Your task to perform on an android device: turn pop-ups off in chrome Image 0: 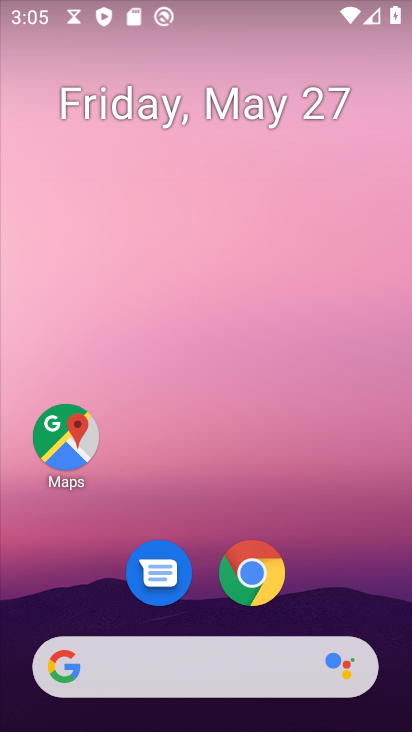
Step 0: click (242, 575)
Your task to perform on an android device: turn pop-ups off in chrome Image 1: 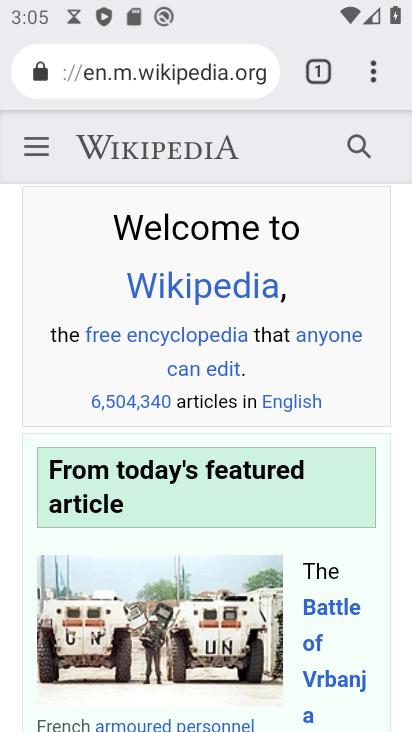
Step 1: click (366, 80)
Your task to perform on an android device: turn pop-ups off in chrome Image 2: 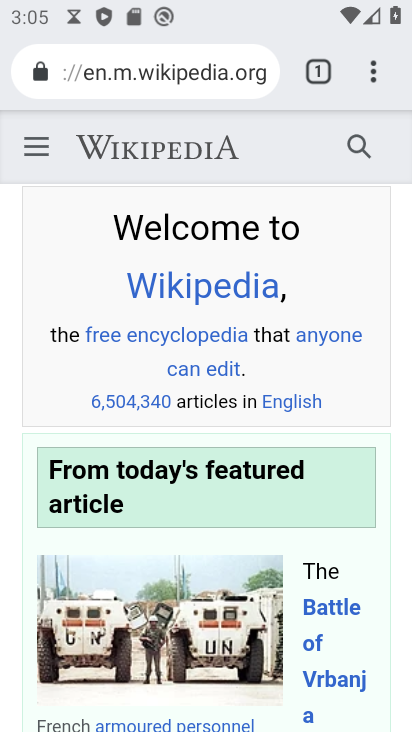
Step 2: click (363, 72)
Your task to perform on an android device: turn pop-ups off in chrome Image 3: 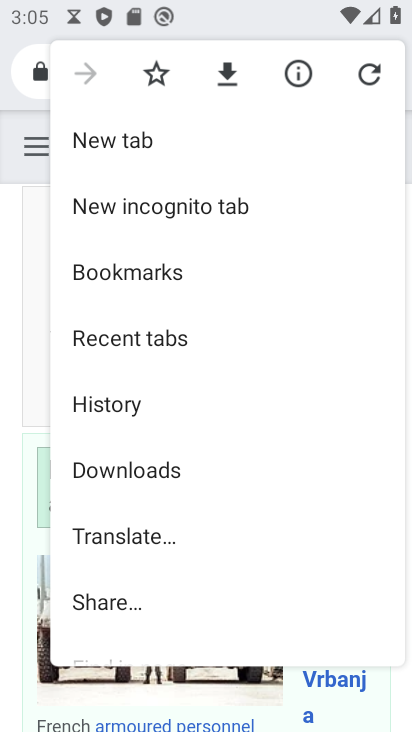
Step 3: drag from (152, 577) to (171, 242)
Your task to perform on an android device: turn pop-ups off in chrome Image 4: 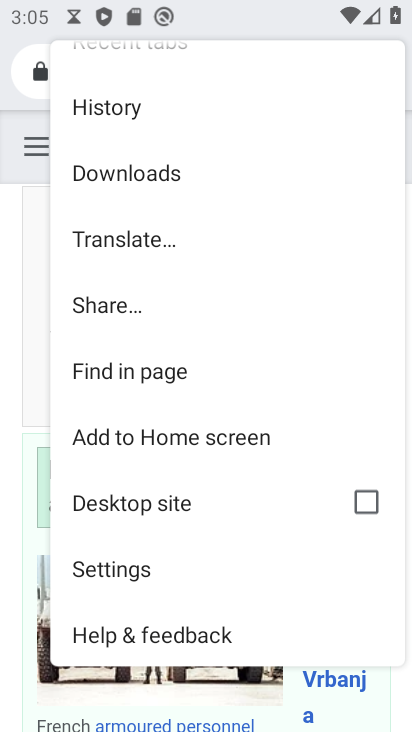
Step 4: click (201, 568)
Your task to perform on an android device: turn pop-ups off in chrome Image 5: 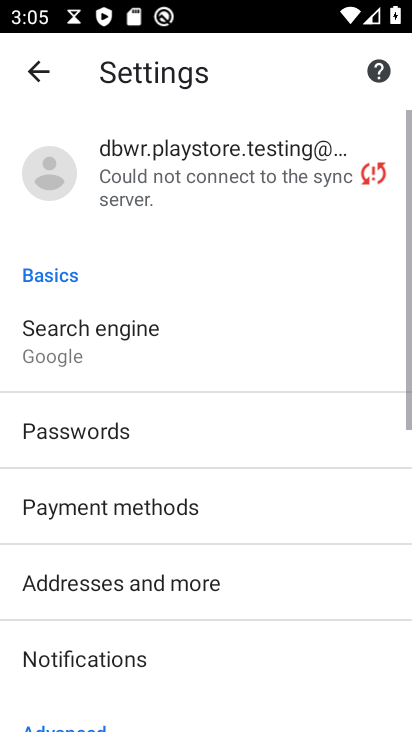
Step 5: drag from (191, 602) to (191, 203)
Your task to perform on an android device: turn pop-ups off in chrome Image 6: 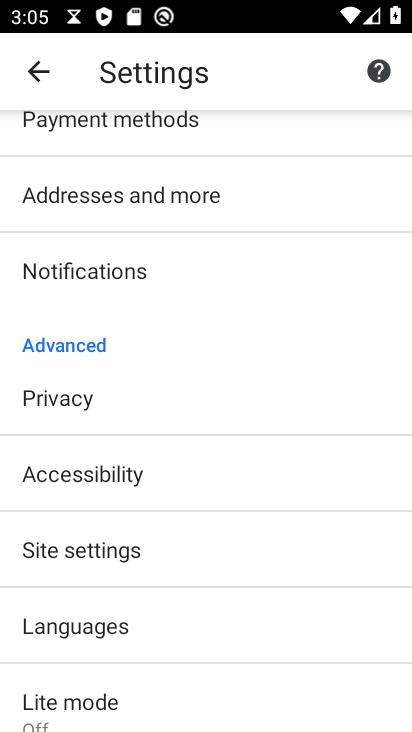
Step 6: click (160, 553)
Your task to perform on an android device: turn pop-ups off in chrome Image 7: 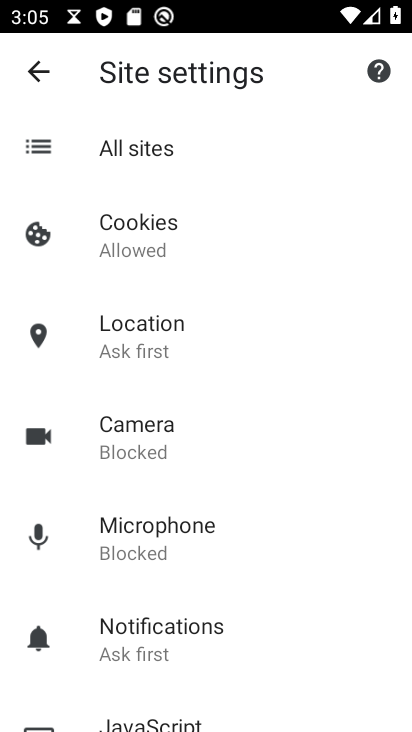
Step 7: drag from (190, 695) to (221, 533)
Your task to perform on an android device: turn pop-ups off in chrome Image 8: 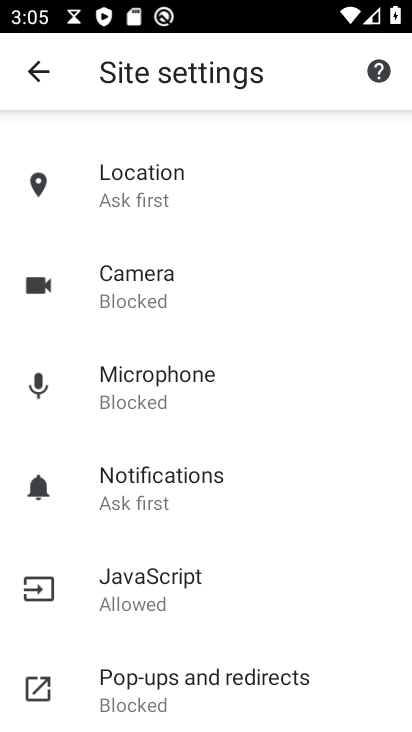
Step 8: click (170, 689)
Your task to perform on an android device: turn pop-ups off in chrome Image 9: 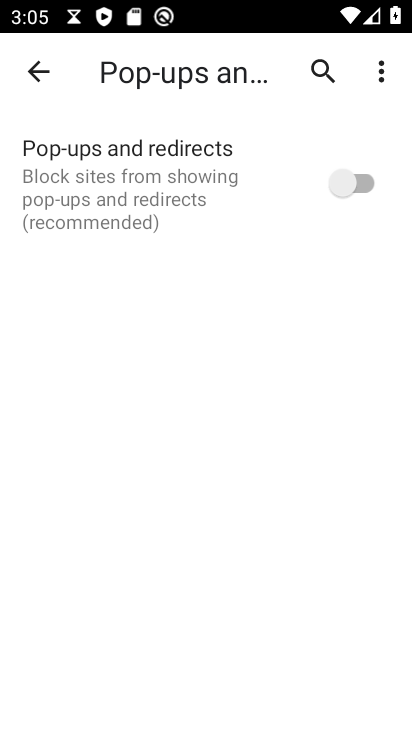
Step 9: task complete